Your task to perform on an android device: Go to settings Image 0: 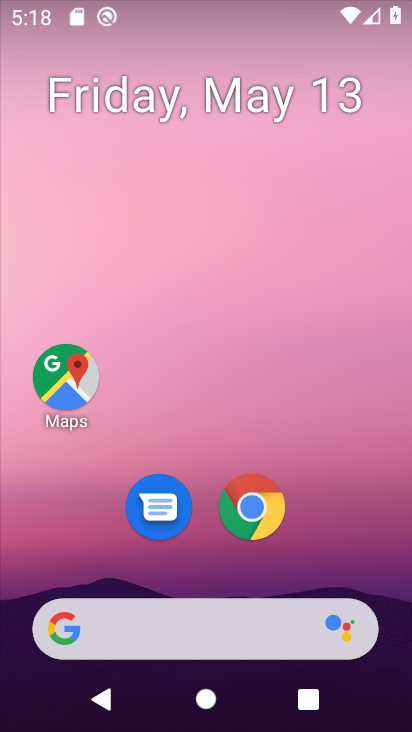
Step 0: drag from (341, 538) to (213, 9)
Your task to perform on an android device: Go to settings Image 1: 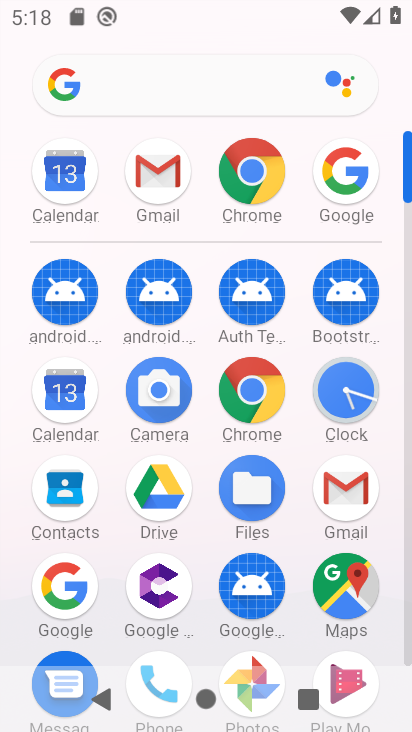
Step 1: drag from (205, 644) to (187, 266)
Your task to perform on an android device: Go to settings Image 2: 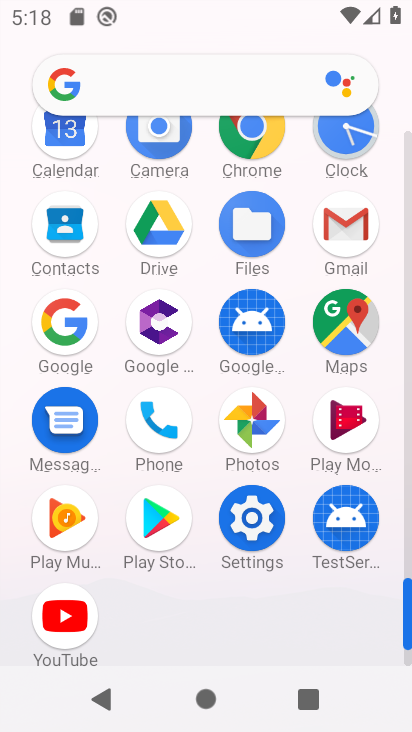
Step 2: click (261, 539)
Your task to perform on an android device: Go to settings Image 3: 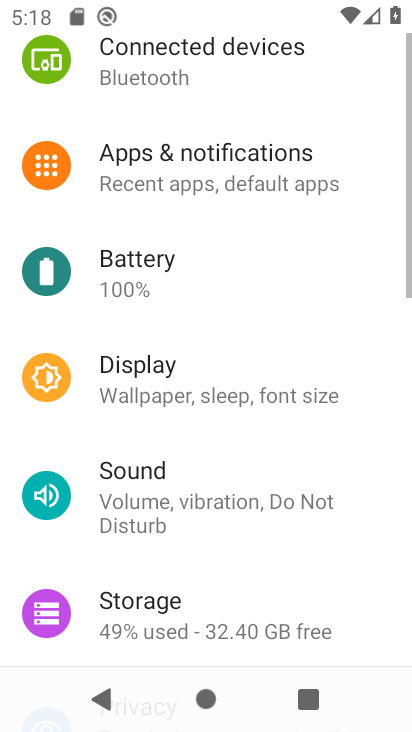
Step 3: task complete